Your task to perform on an android device: stop showing notifications on the lock screen Image 0: 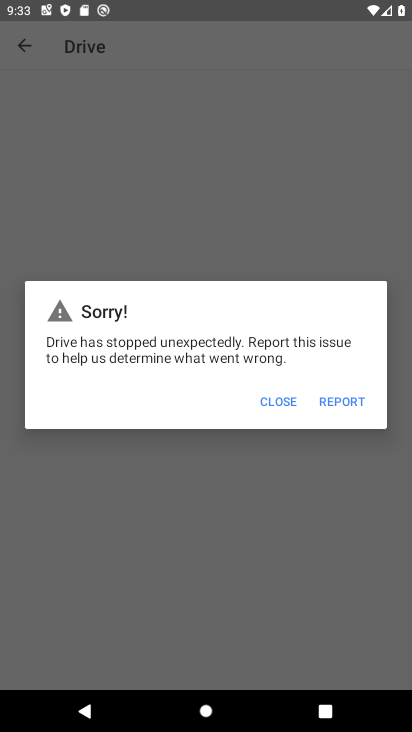
Step 0: press home button
Your task to perform on an android device: stop showing notifications on the lock screen Image 1: 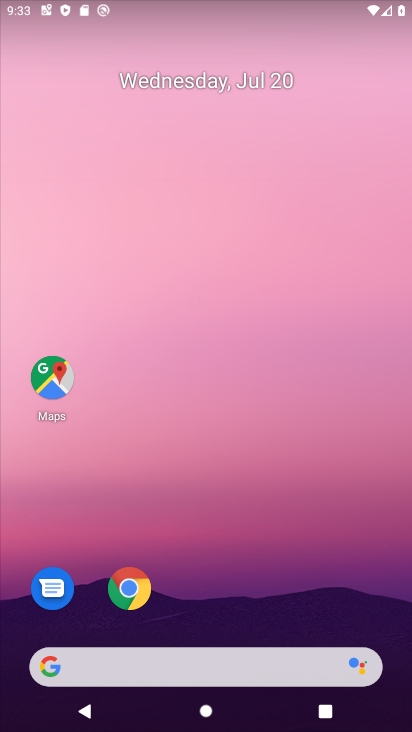
Step 1: drag from (252, 594) to (287, 27)
Your task to perform on an android device: stop showing notifications on the lock screen Image 2: 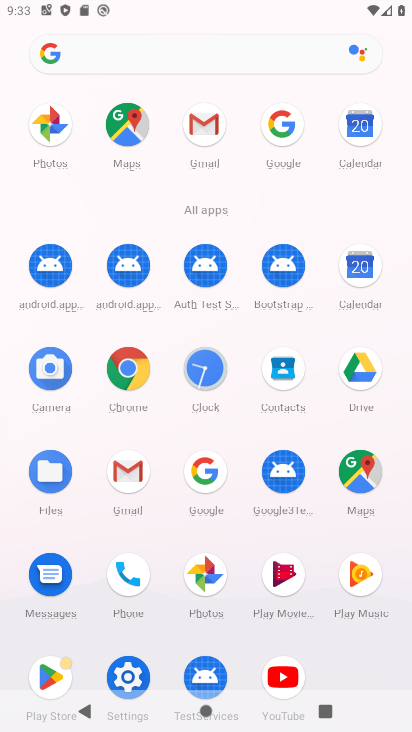
Step 2: click (121, 675)
Your task to perform on an android device: stop showing notifications on the lock screen Image 3: 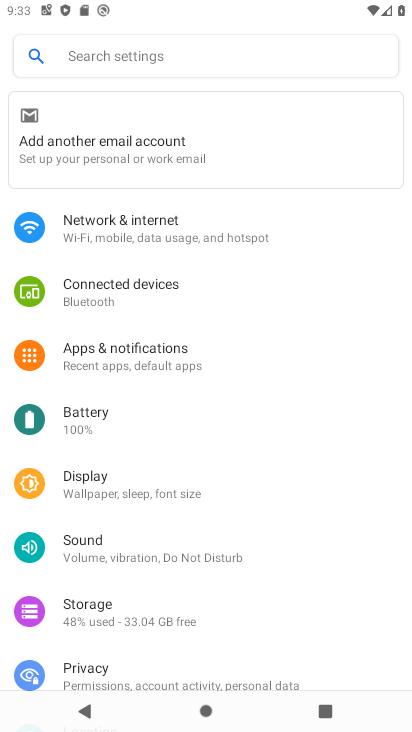
Step 3: click (118, 353)
Your task to perform on an android device: stop showing notifications on the lock screen Image 4: 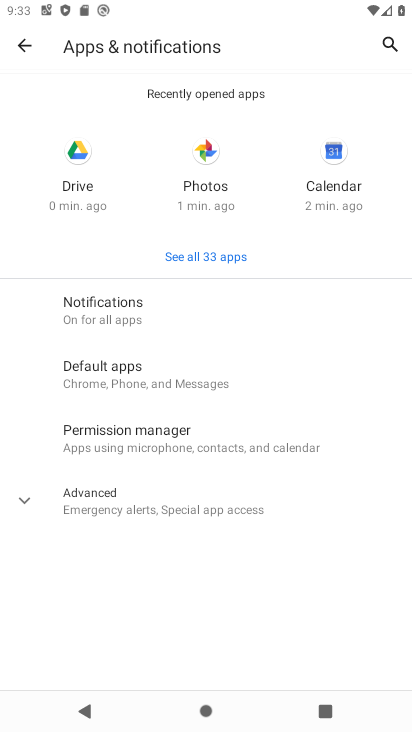
Step 4: click (105, 318)
Your task to perform on an android device: stop showing notifications on the lock screen Image 5: 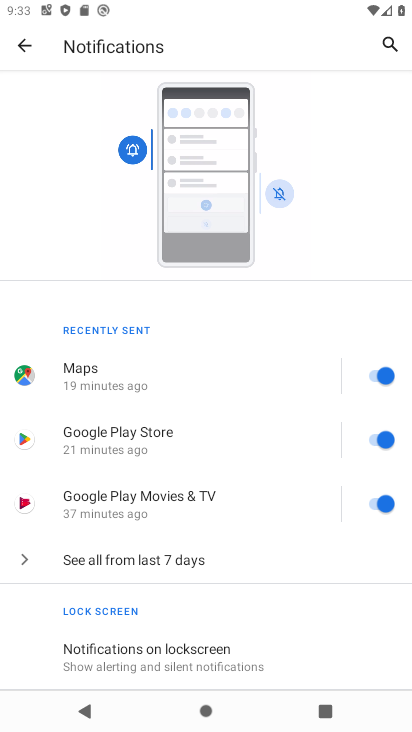
Step 5: click (138, 653)
Your task to perform on an android device: stop showing notifications on the lock screen Image 6: 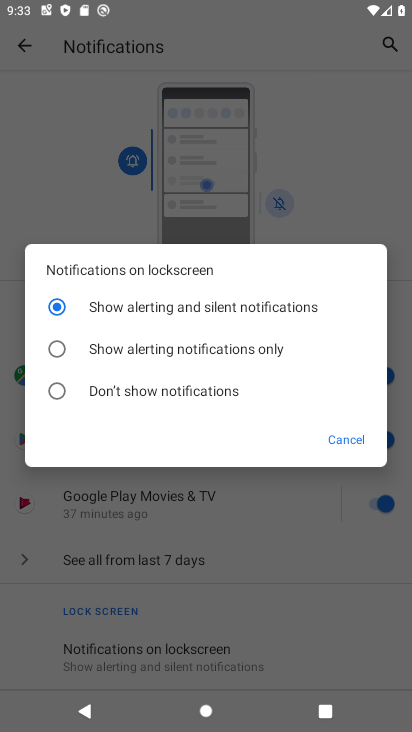
Step 6: click (98, 389)
Your task to perform on an android device: stop showing notifications on the lock screen Image 7: 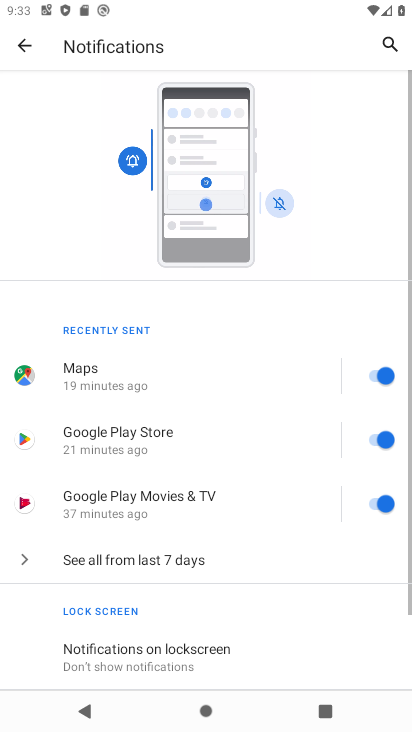
Step 7: task complete